Your task to perform on an android device: Go to sound settings Image 0: 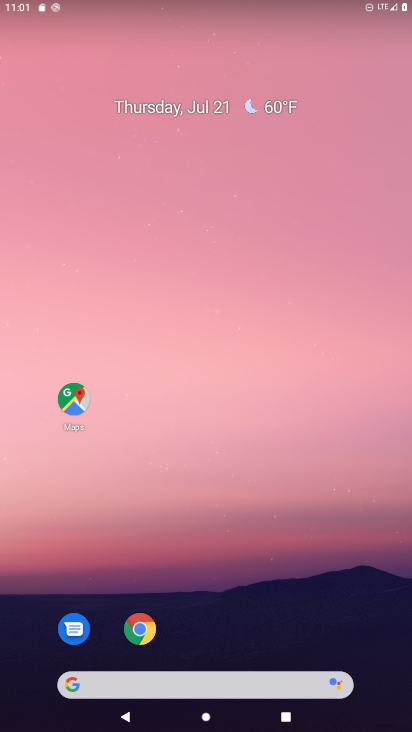
Step 0: press home button
Your task to perform on an android device: Go to sound settings Image 1: 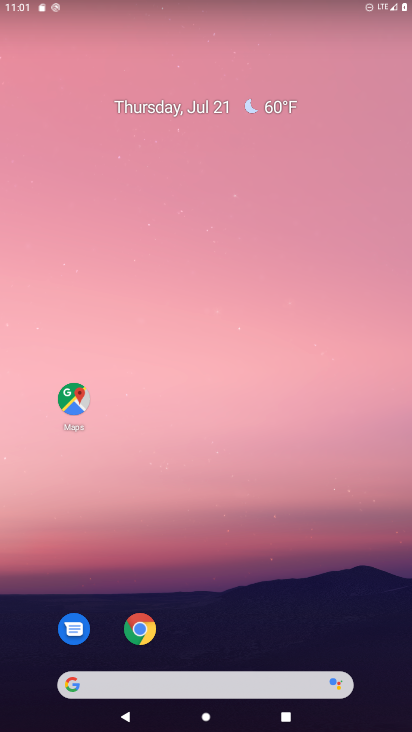
Step 1: drag from (260, 602) to (401, 113)
Your task to perform on an android device: Go to sound settings Image 2: 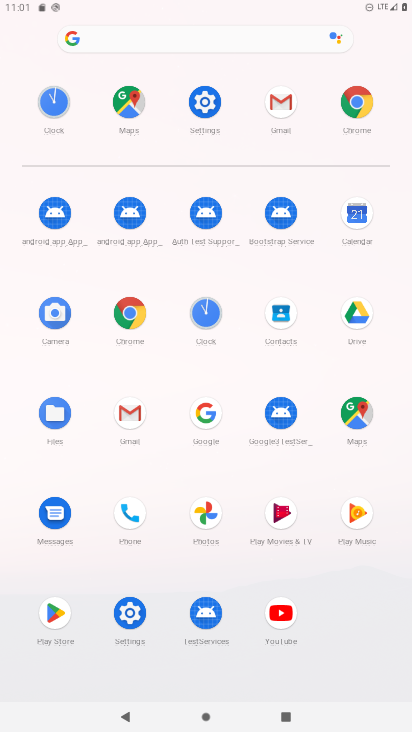
Step 2: click (208, 146)
Your task to perform on an android device: Go to sound settings Image 3: 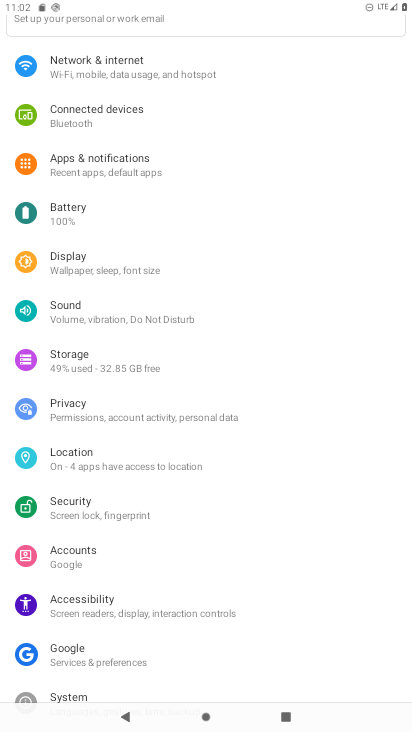
Step 3: click (64, 313)
Your task to perform on an android device: Go to sound settings Image 4: 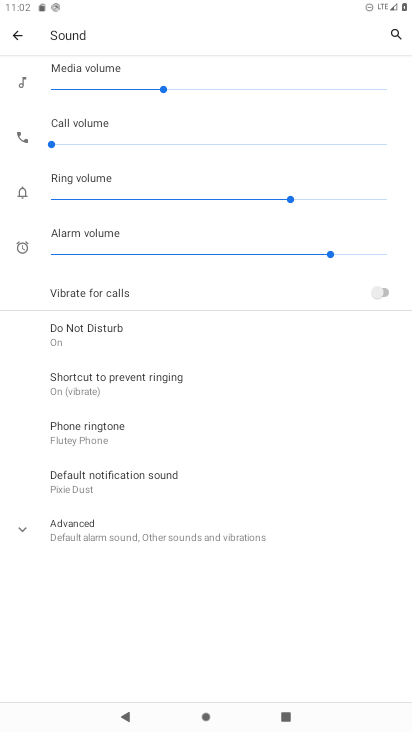
Step 4: task complete